Your task to perform on an android device: change your default location settings in chrome Image 0: 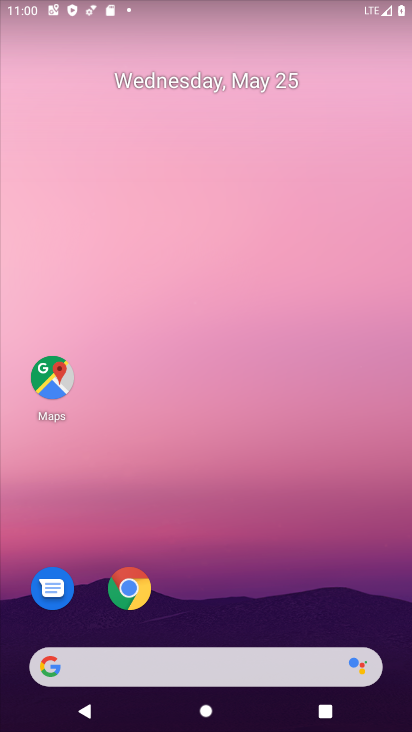
Step 0: click (134, 601)
Your task to perform on an android device: change your default location settings in chrome Image 1: 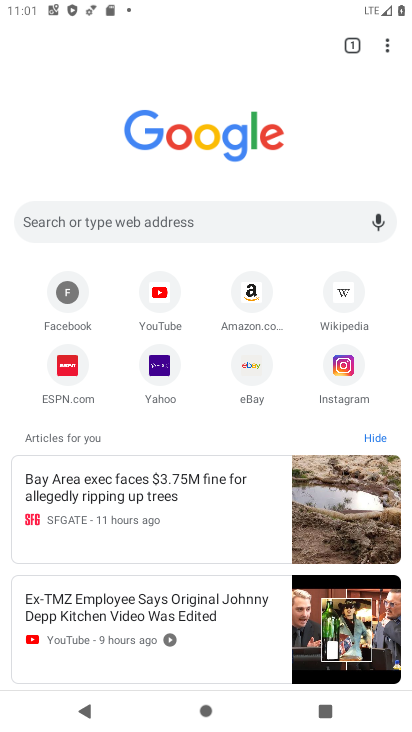
Step 1: click (389, 43)
Your task to perform on an android device: change your default location settings in chrome Image 2: 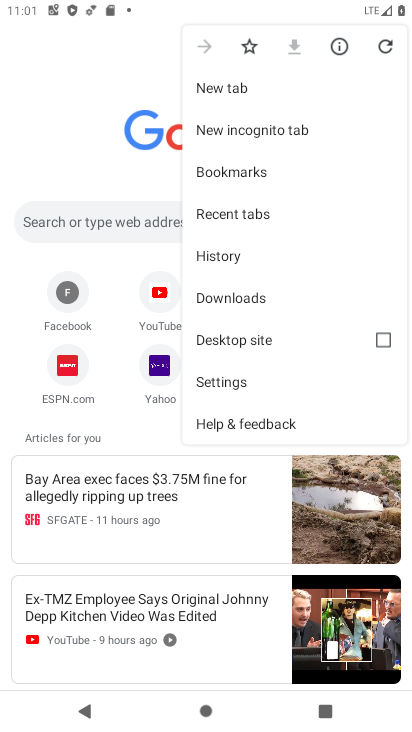
Step 2: click (258, 385)
Your task to perform on an android device: change your default location settings in chrome Image 3: 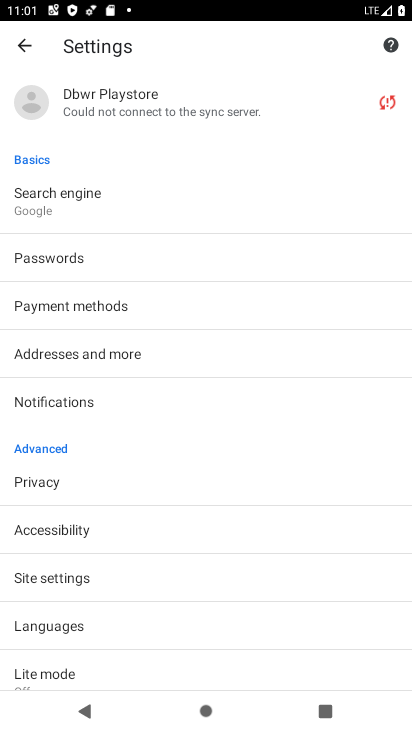
Step 3: drag from (100, 667) to (176, 310)
Your task to perform on an android device: change your default location settings in chrome Image 4: 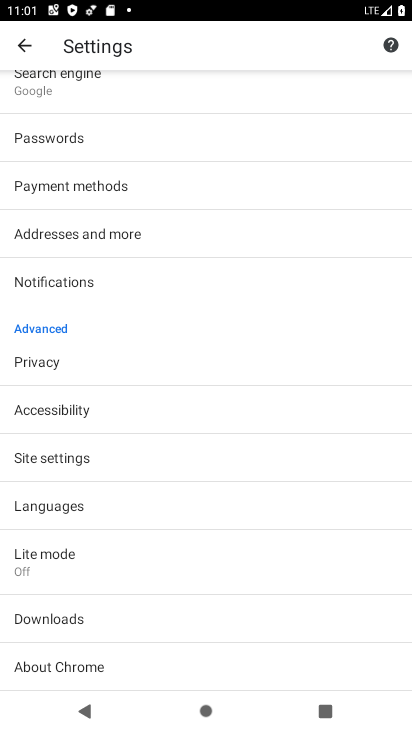
Step 4: drag from (118, 625) to (170, 205)
Your task to perform on an android device: change your default location settings in chrome Image 5: 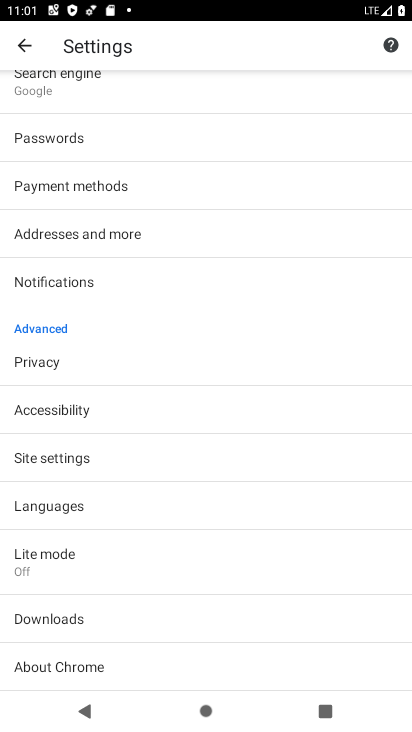
Step 5: click (91, 440)
Your task to perform on an android device: change your default location settings in chrome Image 6: 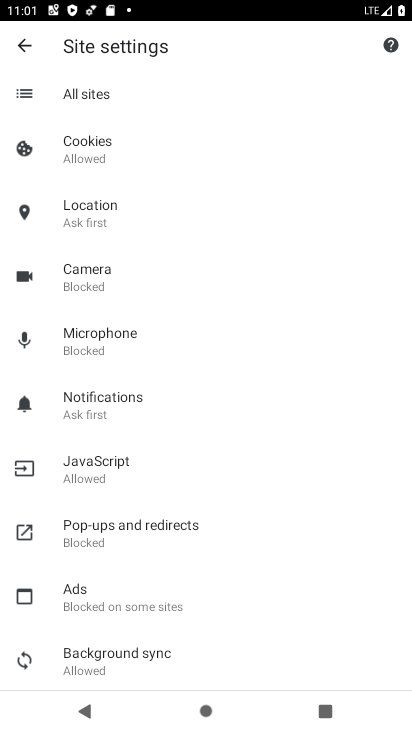
Step 6: click (149, 194)
Your task to perform on an android device: change your default location settings in chrome Image 7: 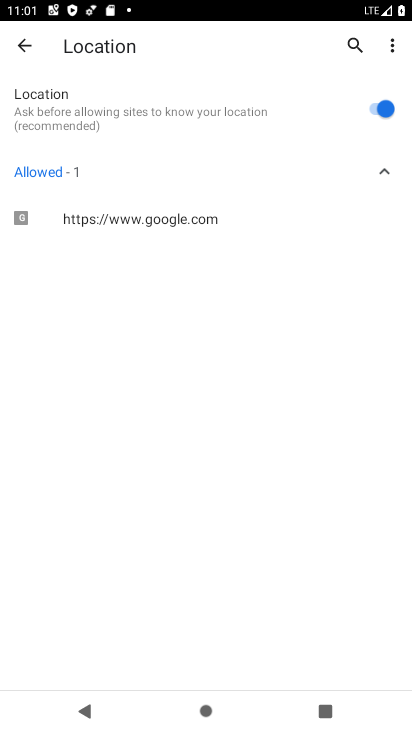
Step 7: click (373, 104)
Your task to perform on an android device: change your default location settings in chrome Image 8: 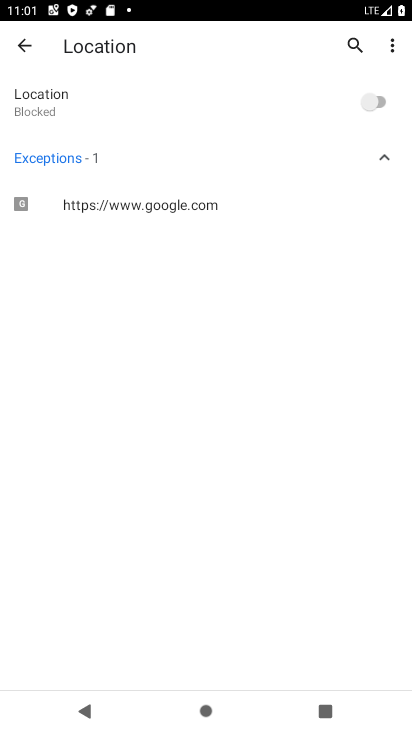
Step 8: task complete